Your task to perform on an android device: Open the map Image 0: 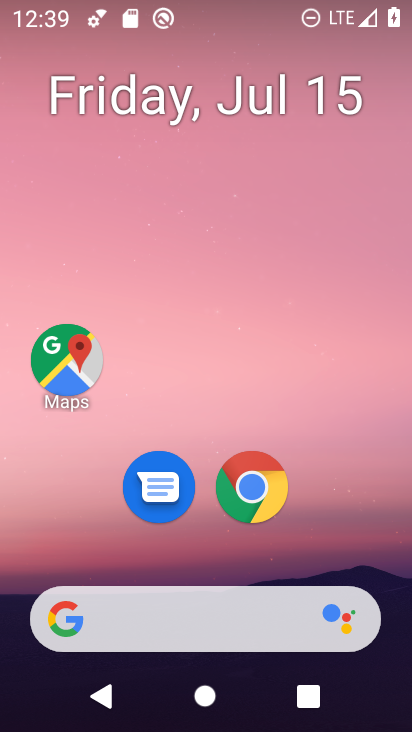
Step 0: drag from (286, 599) to (297, 307)
Your task to perform on an android device: Open the map Image 1: 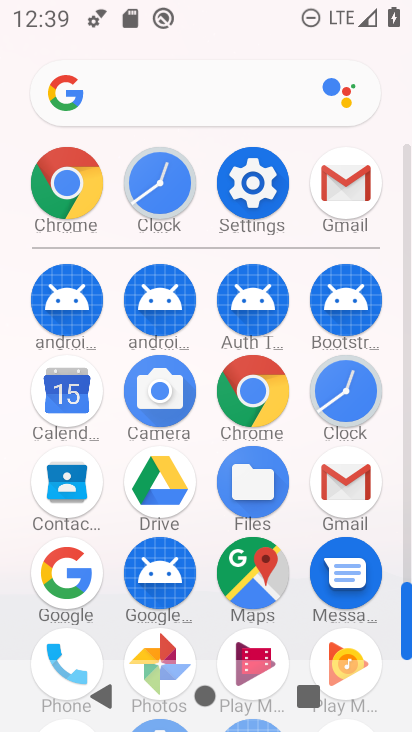
Step 1: click (269, 586)
Your task to perform on an android device: Open the map Image 2: 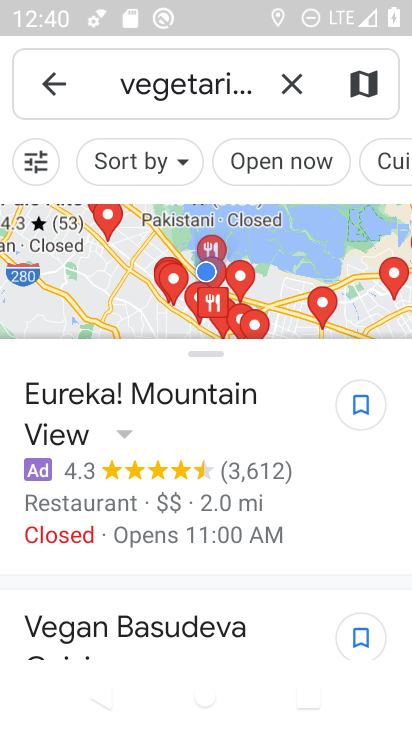
Step 2: task complete